Your task to perform on an android device: Go to Android settings Image 0: 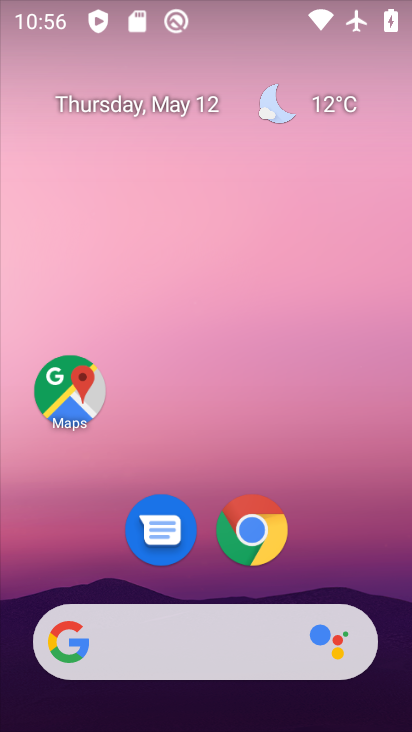
Step 0: drag from (249, 538) to (331, 82)
Your task to perform on an android device: Go to Android settings Image 1: 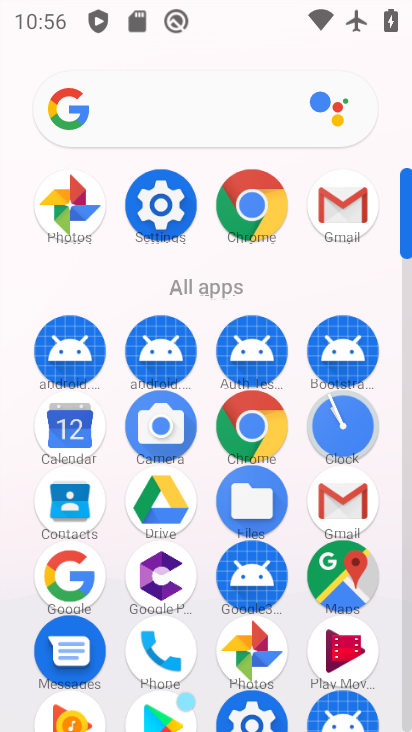
Step 1: click (163, 219)
Your task to perform on an android device: Go to Android settings Image 2: 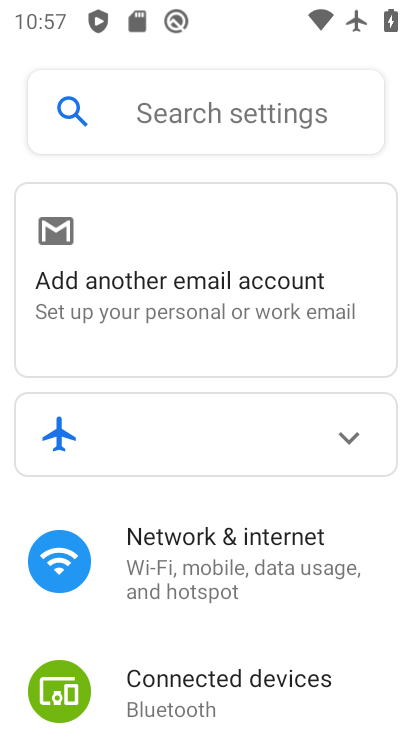
Step 2: task complete